Your task to perform on an android device: all mails in gmail Image 0: 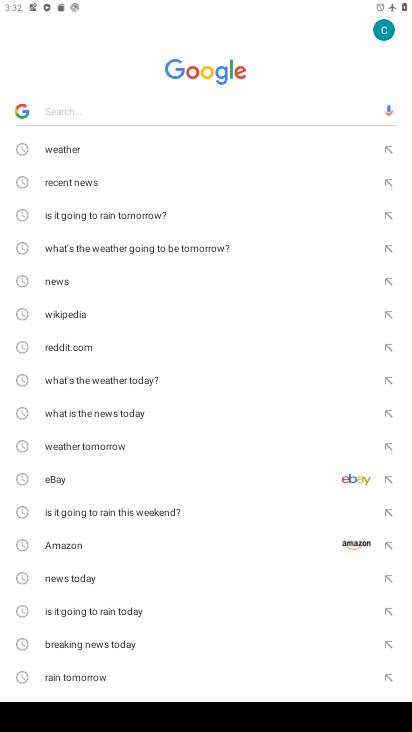
Step 0: press home button
Your task to perform on an android device: all mails in gmail Image 1: 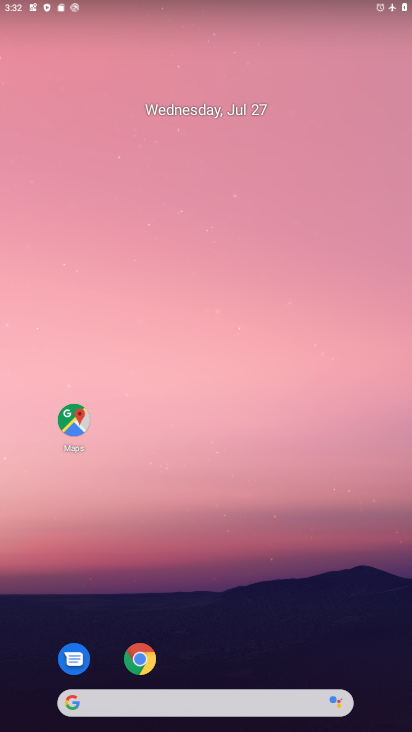
Step 1: drag from (263, 630) to (237, 81)
Your task to perform on an android device: all mails in gmail Image 2: 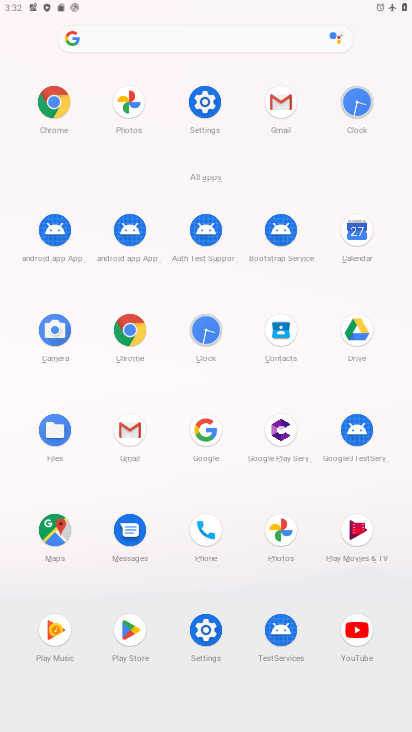
Step 2: click (277, 101)
Your task to perform on an android device: all mails in gmail Image 3: 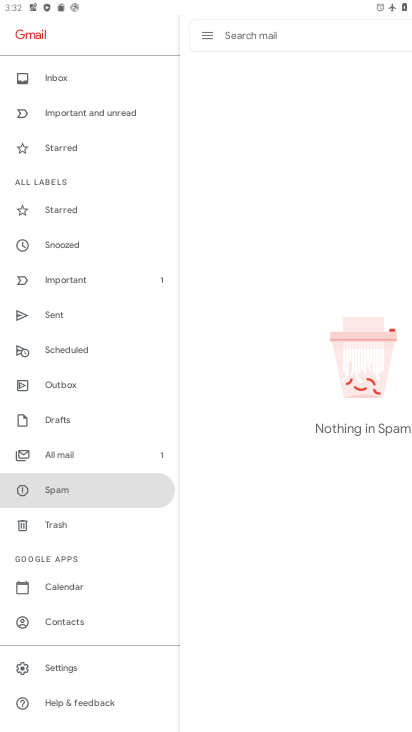
Step 3: click (79, 453)
Your task to perform on an android device: all mails in gmail Image 4: 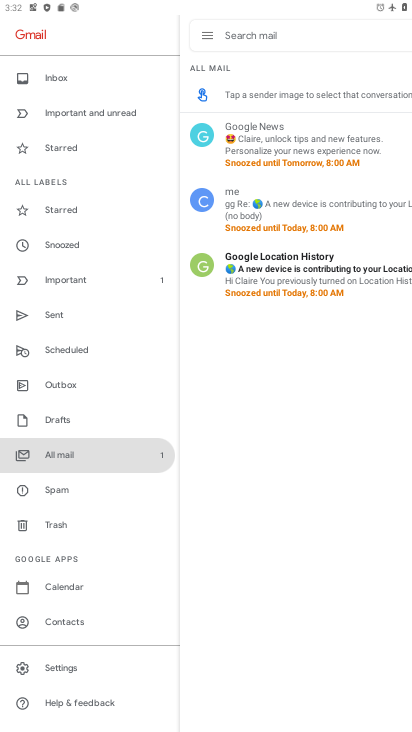
Step 4: task complete